Your task to perform on an android device: Set the phone to "Do not disturb". Image 0: 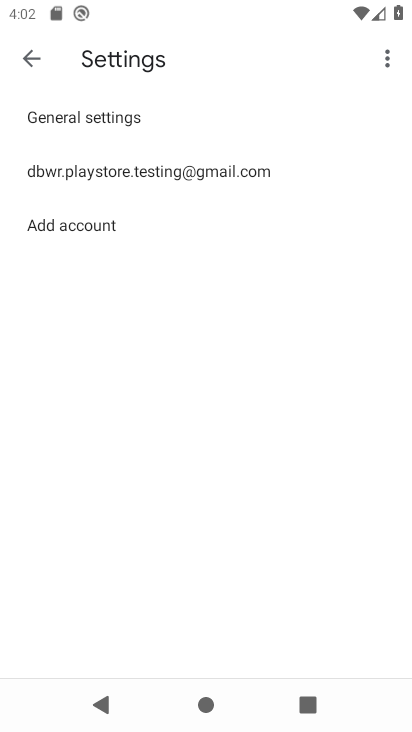
Step 0: drag from (139, 14) to (198, 554)
Your task to perform on an android device: Set the phone to "Do not disturb". Image 1: 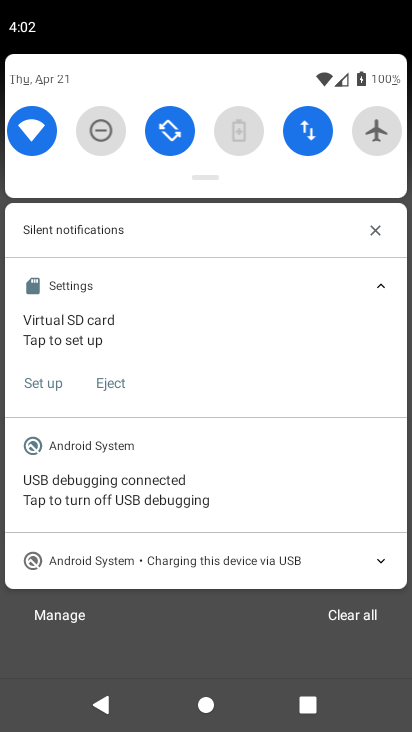
Step 1: click (91, 138)
Your task to perform on an android device: Set the phone to "Do not disturb". Image 2: 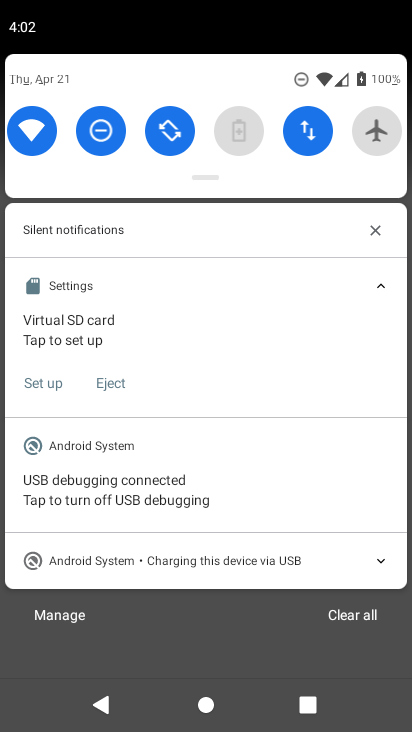
Step 2: task complete